Your task to perform on an android device: set the stopwatch Image 0: 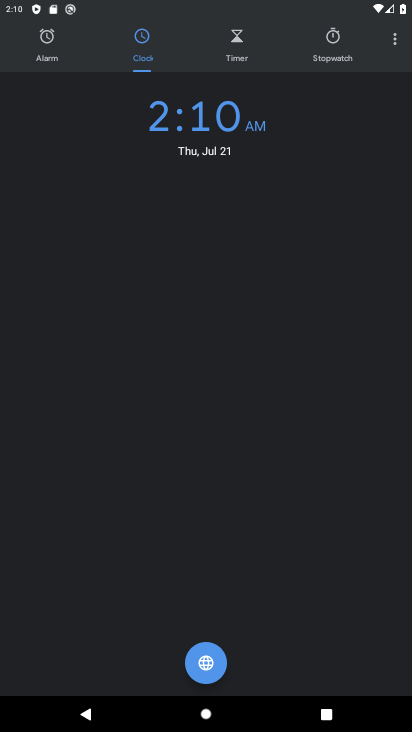
Step 0: click (317, 50)
Your task to perform on an android device: set the stopwatch Image 1: 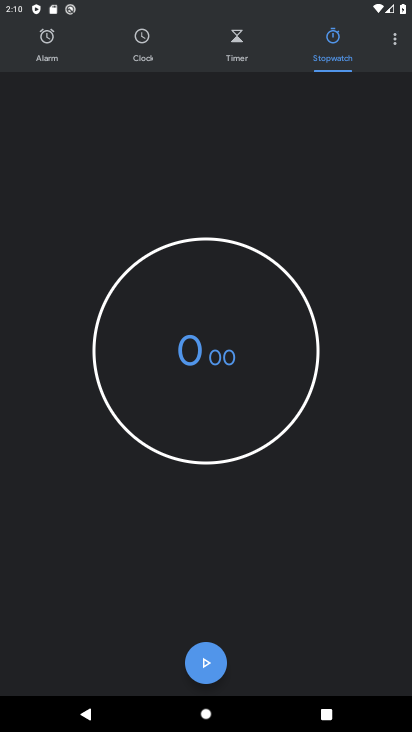
Step 1: click (187, 674)
Your task to perform on an android device: set the stopwatch Image 2: 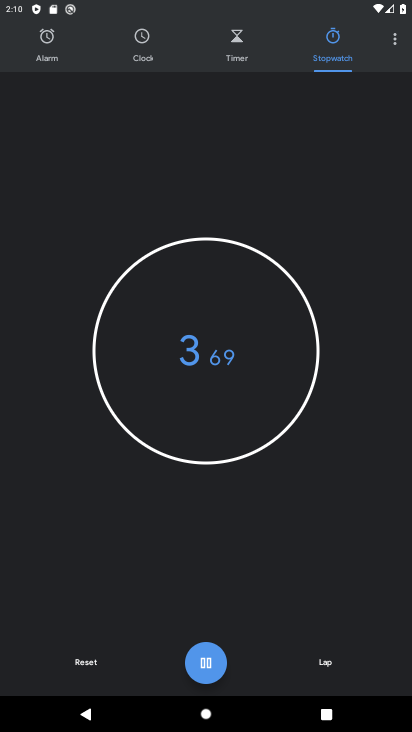
Step 2: task complete